Your task to perform on an android device: Do I have any events this weekend? Image 0: 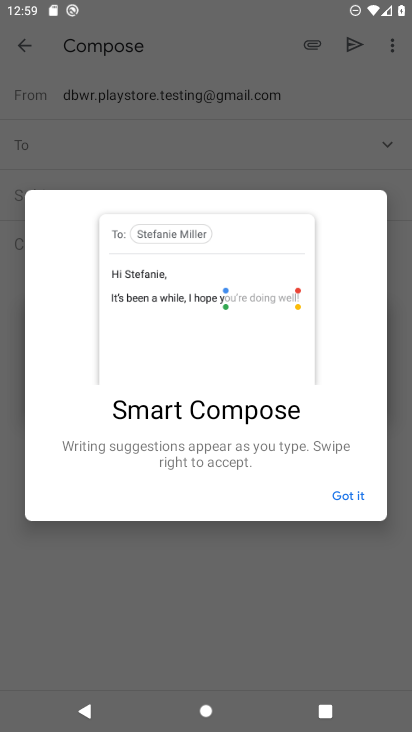
Step 0: click (355, 494)
Your task to perform on an android device: Do I have any events this weekend? Image 1: 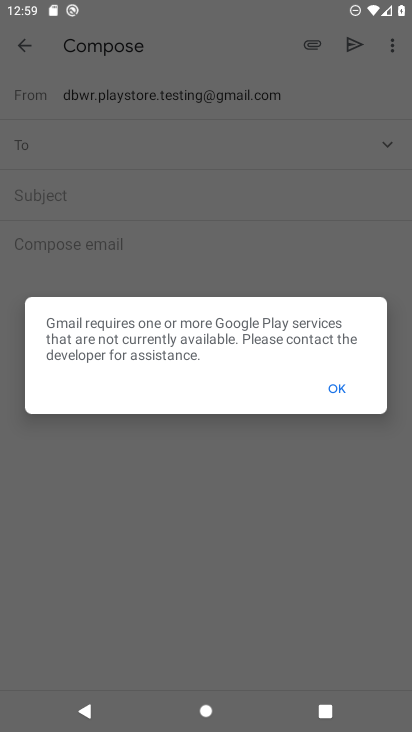
Step 1: click (355, 494)
Your task to perform on an android device: Do I have any events this weekend? Image 2: 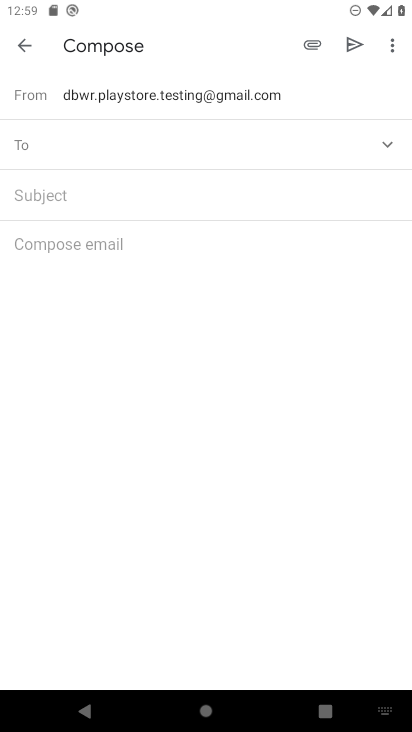
Step 2: press home button
Your task to perform on an android device: Do I have any events this weekend? Image 3: 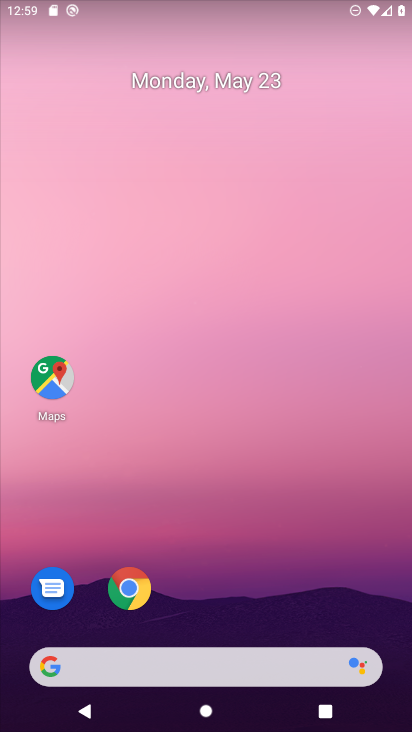
Step 3: drag from (238, 648) to (270, 277)
Your task to perform on an android device: Do I have any events this weekend? Image 4: 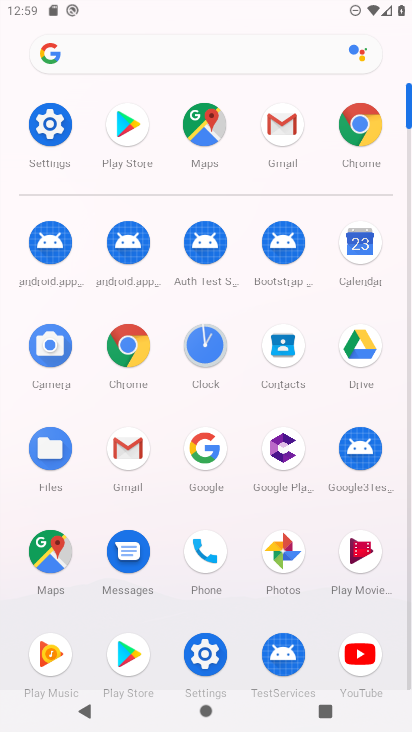
Step 4: click (362, 248)
Your task to perform on an android device: Do I have any events this weekend? Image 5: 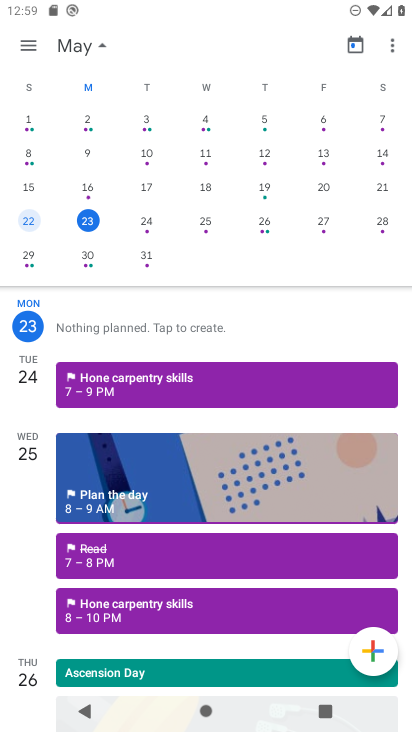
Step 5: click (27, 257)
Your task to perform on an android device: Do I have any events this weekend? Image 6: 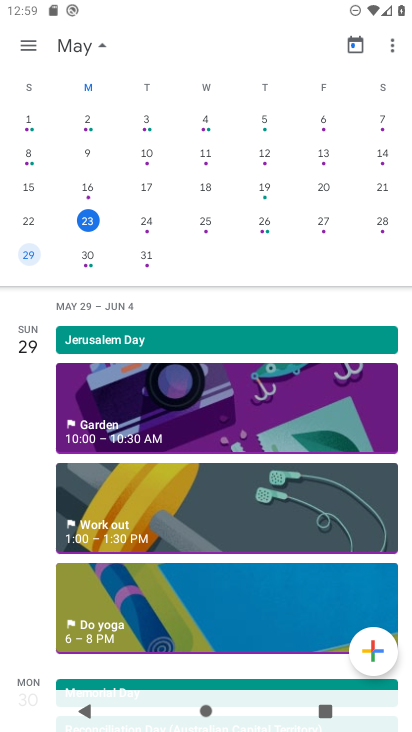
Step 6: click (170, 335)
Your task to perform on an android device: Do I have any events this weekend? Image 7: 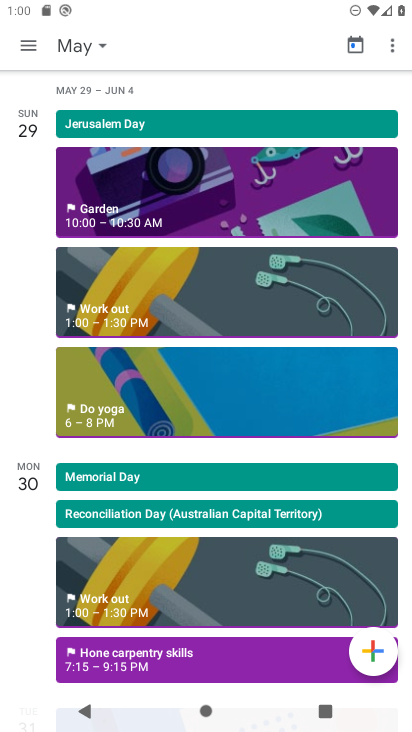
Step 7: task complete